Your task to perform on an android device: Go to accessibility settings Image 0: 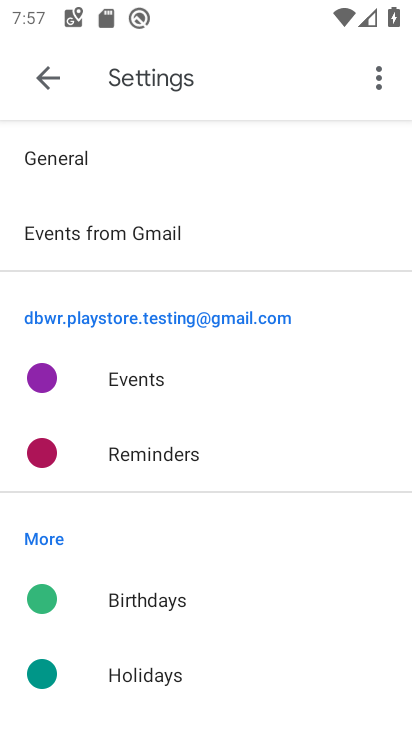
Step 0: press home button
Your task to perform on an android device: Go to accessibility settings Image 1: 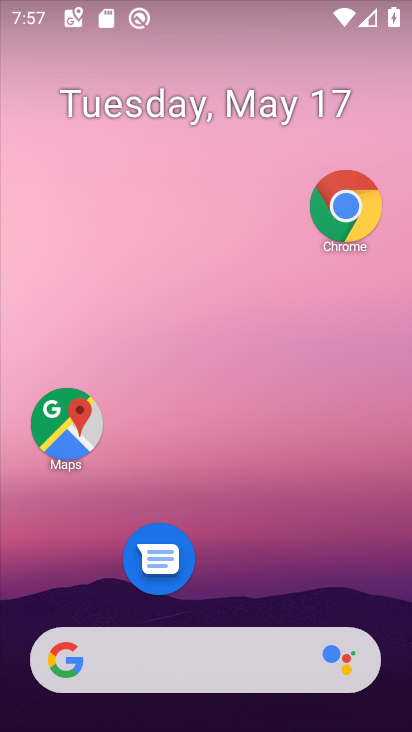
Step 1: drag from (264, 617) to (254, 243)
Your task to perform on an android device: Go to accessibility settings Image 2: 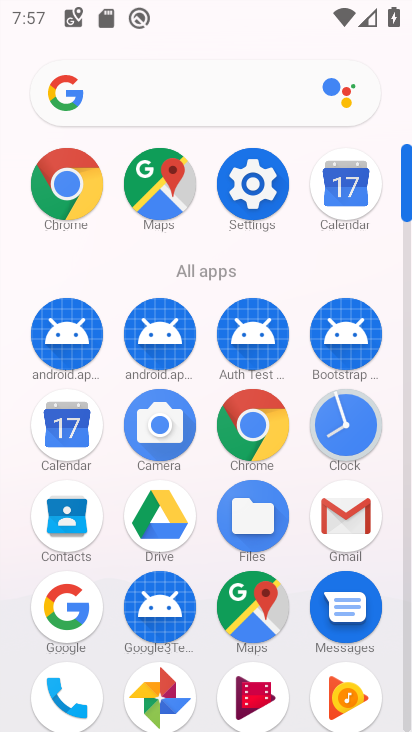
Step 2: click (269, 230)
Your task to perform on an android device: Go to accessibility settings Image 3: 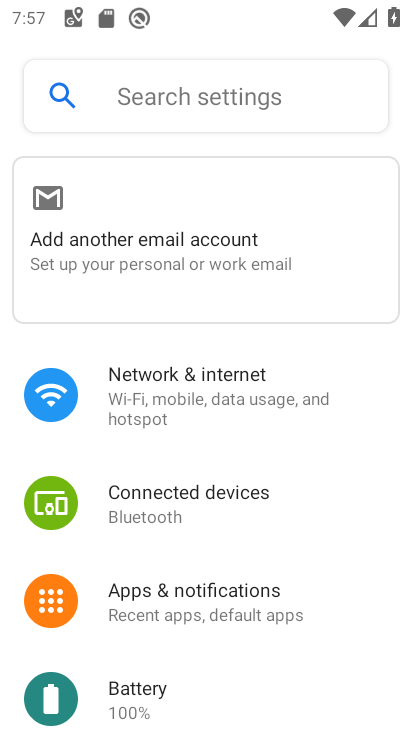
Step 3: drag from (198, 563) to (192, 170)
Your task to perform on an android device: Go to accessibility settings Image 4: 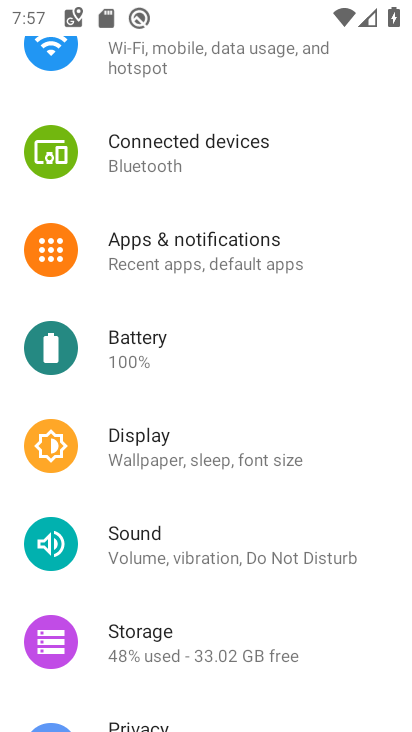
Step 4: drag from (190, 348) to (221, 196)
Your task to perform on an android device: Go to accessibility settings Image 5: 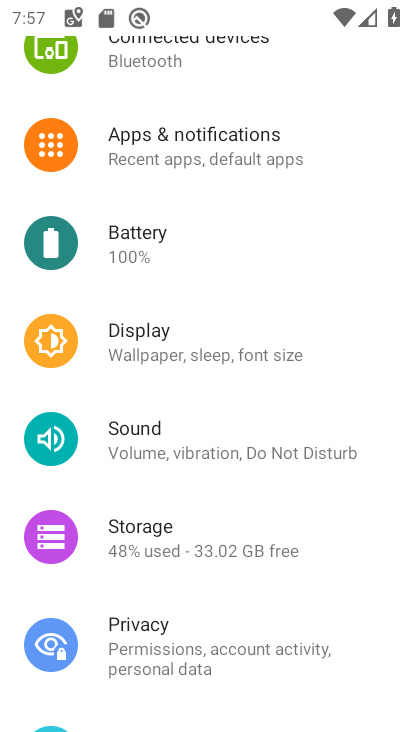
Step 5: drag from (193, 462) to (200, 166)
Your task to perform on an android device: Go to accessibility settings Image 6: 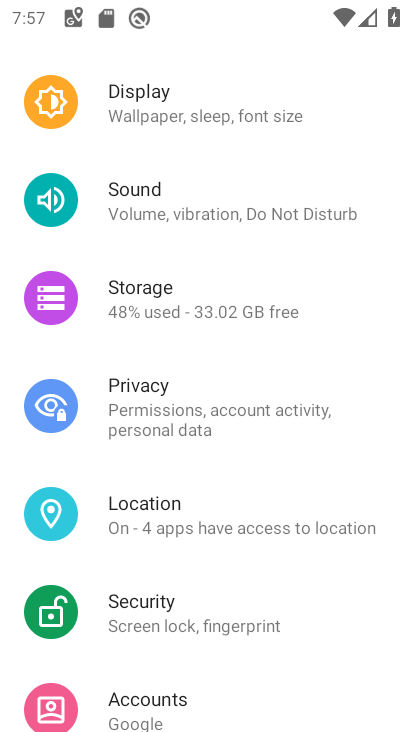
Step 6: drag from (177, 551) to (254, 203)
Your task to perform on an android device: Go to accessibility settings Image 7: 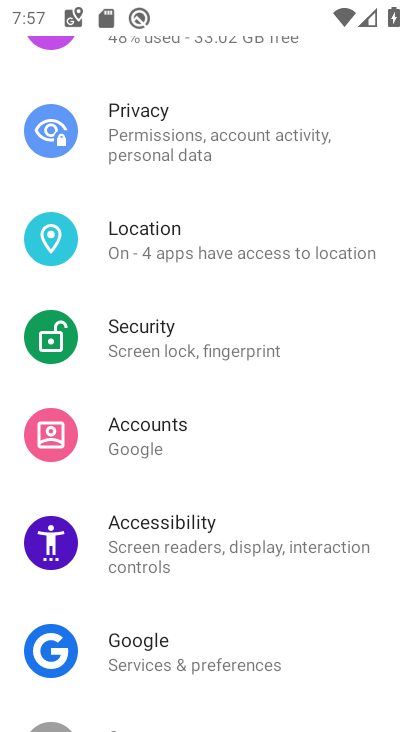
Step 7: click (220, 515)
Your task to perform on an android device: Go to accessibility settings Image 8: 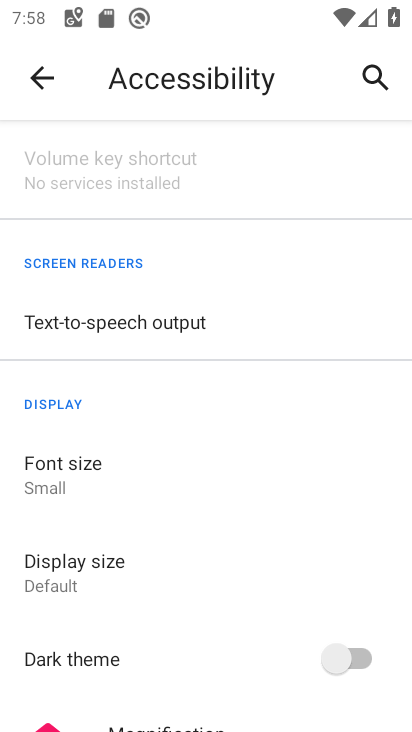
Step 8: task complete